Your task to perform on an android device: turn off data saver in the chrome app Image 0: 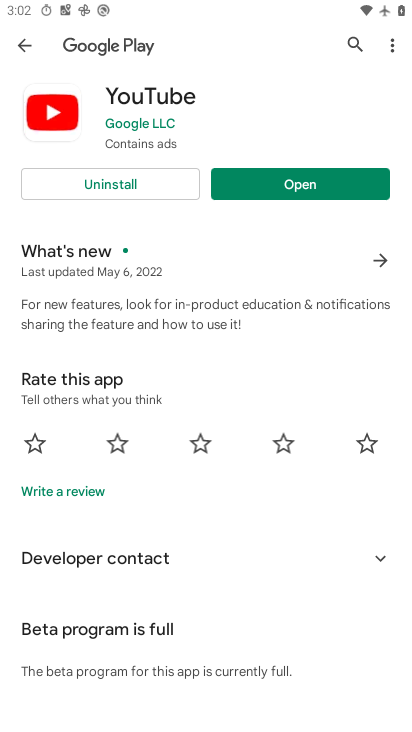
Step 0: press home button
Your task to perform on an android device: turn off data saver in the chrome app Image 1: 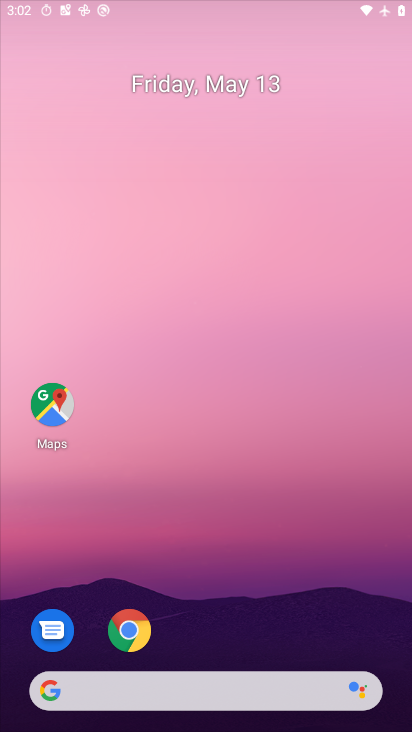
Step 1: drag from (259, 566) to (288, 224)
Your task to perform on an android device: turn off data saver in the chrome app Image 2: 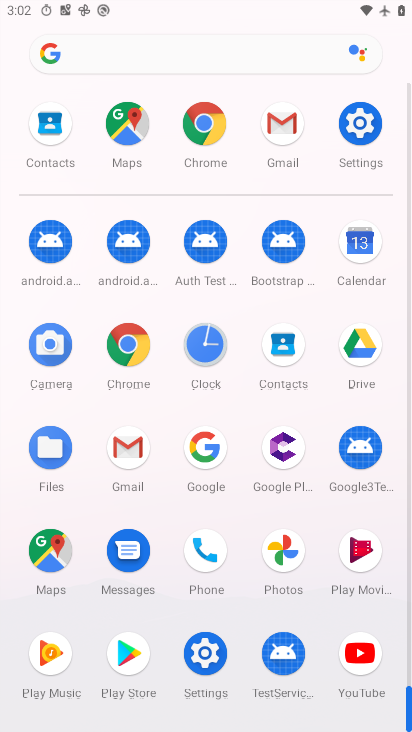
Step 2: click (122, 362)
Your task to perform on an android device: turn off data saver in the chrome app Image 3: 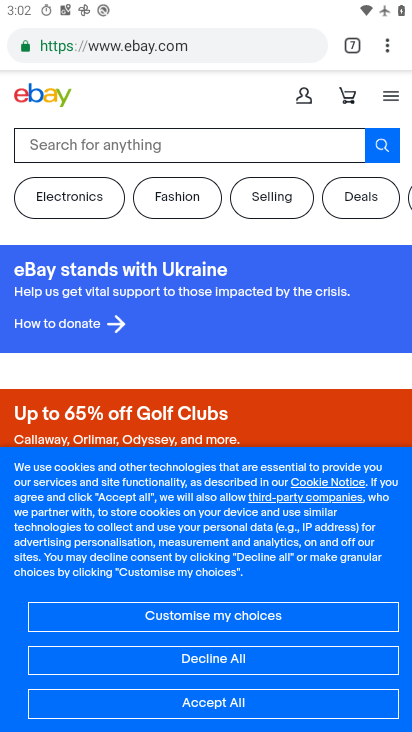
Step 3: click (385, 53)
Your task to perform on an android device: turn off data saver in the chrome app Image 4: 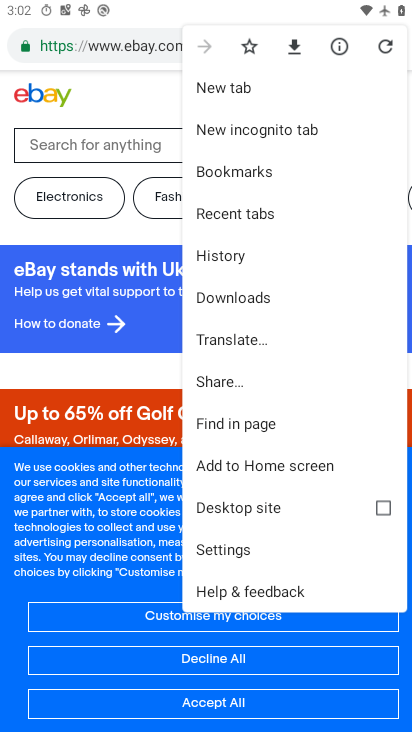
Step 4: click (255, 551)
Your task to perform on an android device: turn off data saver in the chrome app Image 5: 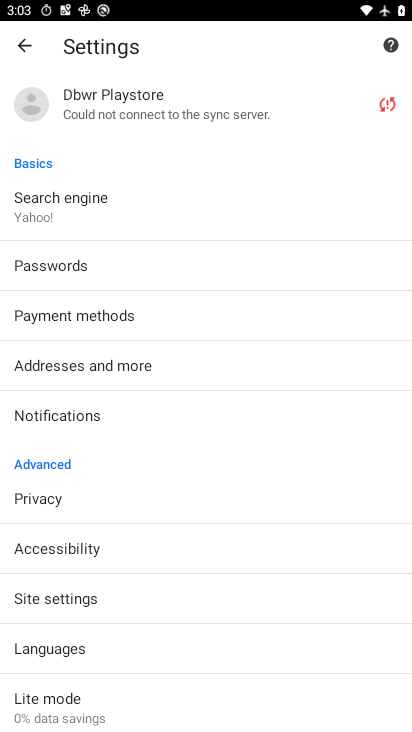
Step 5: click (99, 699)
Your task to perform on an android device: turn off data saver in the chrome app Image 6: 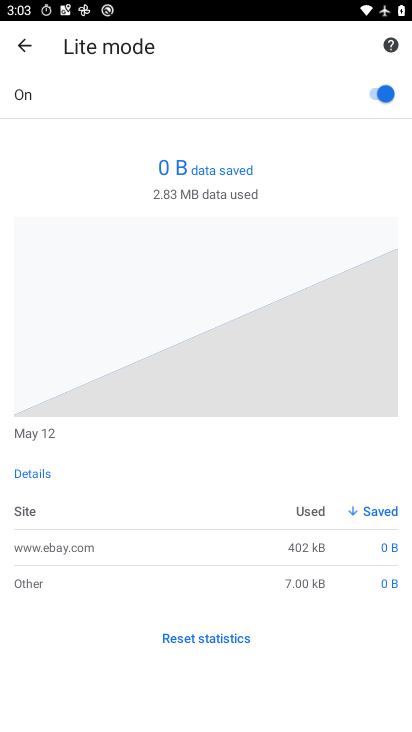
Step 6: click (385, 99)
Your task to perform on an android device: turn off data saver in the chrome app Image 7: 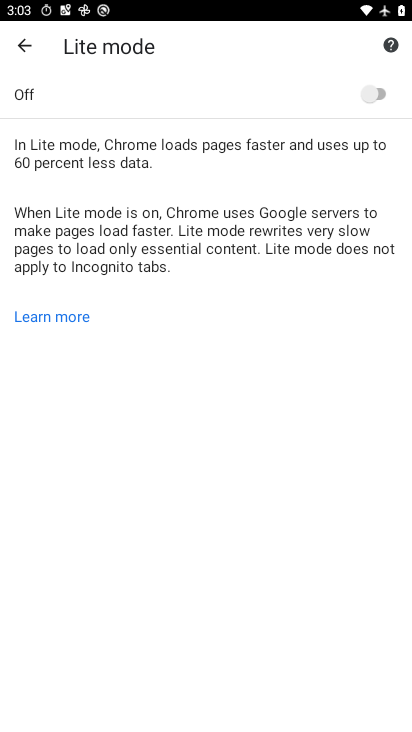
Step 7: task complete